Your task to perform on an android device: Go to battery settings Image 0: 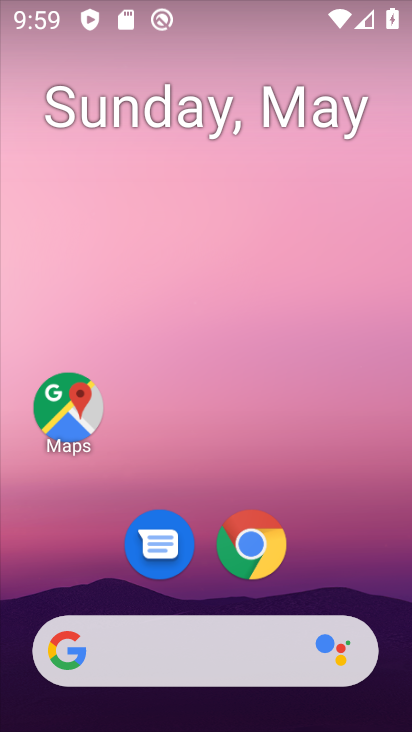
Step 0: drag from (378, 522) to (271, 2)
Your task to perform on an android device: Go to battery settings Image 1: 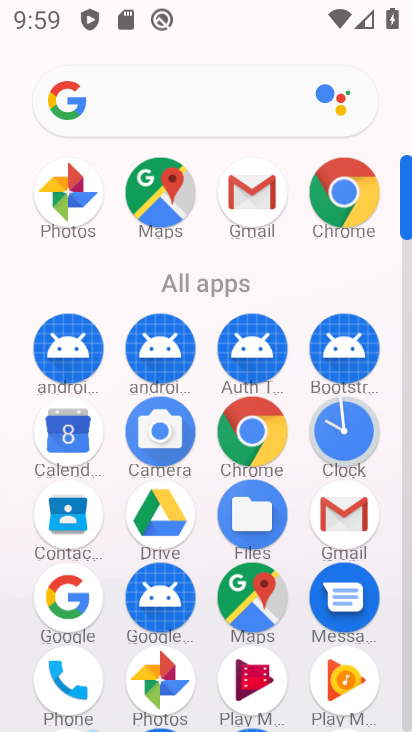
Step 1: drag from (391, 533) to (358, 118)
Your task to perform on an android device: Go to battery settings Image 2: 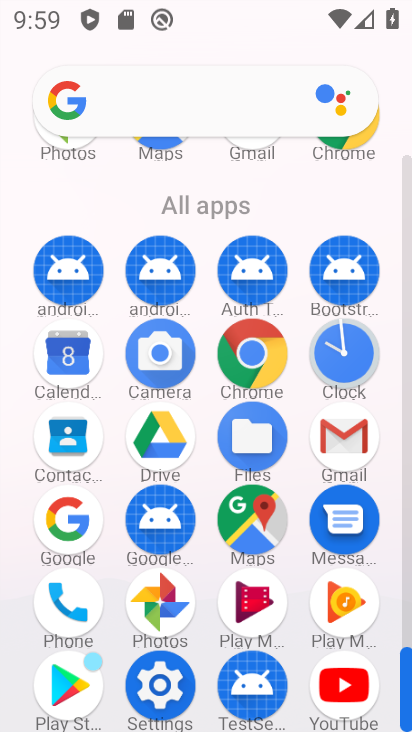
Step 2: click (151, 693)
Your task to perform on an android device: Go to battery settings Image 3: 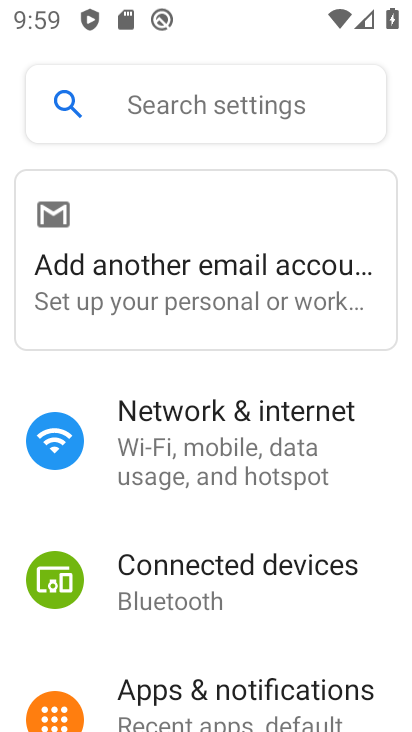
Step 3: drag from (303, 639) to (255, 262)
Your task to perform on an android device: Go to battery settings Image 4: 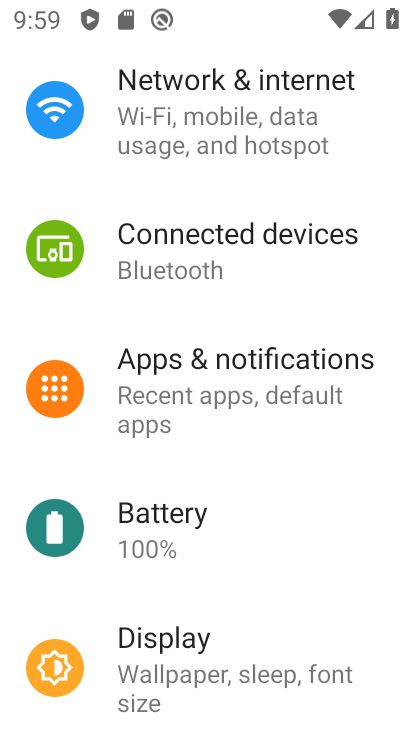
Step 4: click (171, 529)
Your task to perform on an android device: Go to battery settings Image 5: 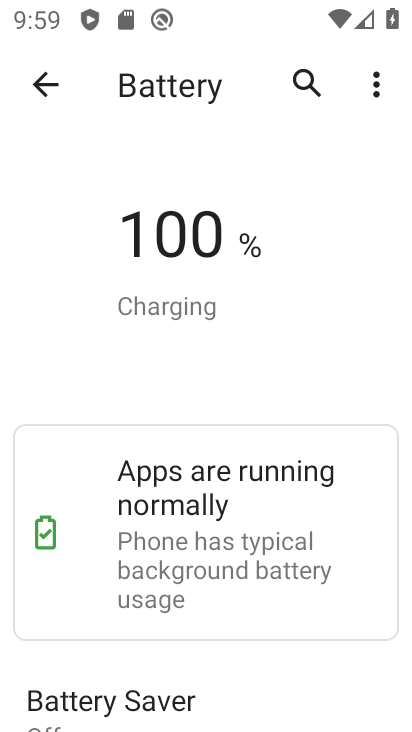
Step 5: task complete